Your task to perform on an android device: Search for vegetarian restaurants on Maps Image 0: 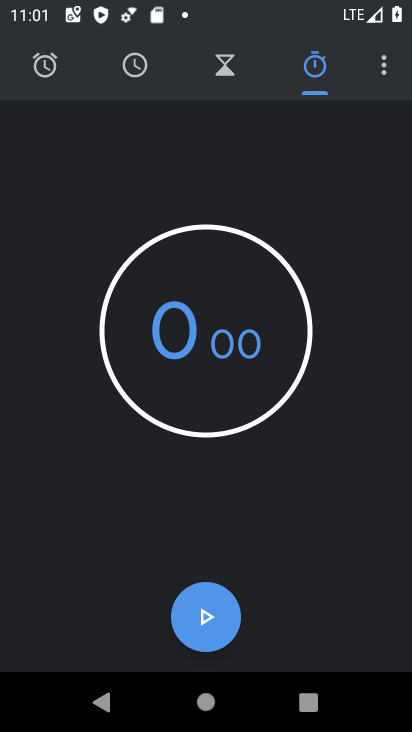
Step 0: press home button
Your task to perform on an android device: Search for vegetarian restaurants on Maps Image 1: 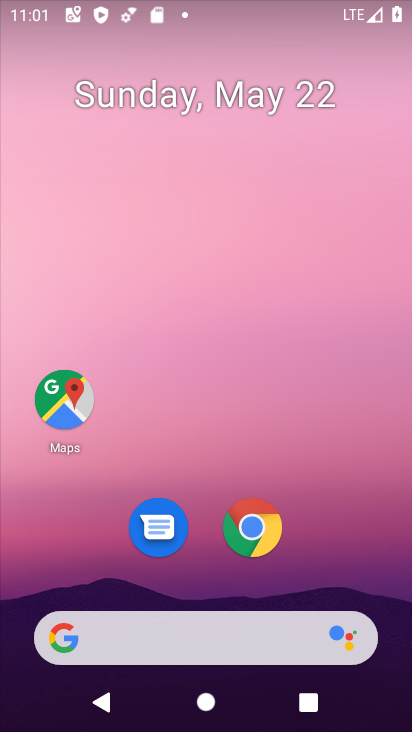
Step 1: click (64, 420)
Your task to perform on an android device: Search for vegetarian restaurants on Maps Image 2: 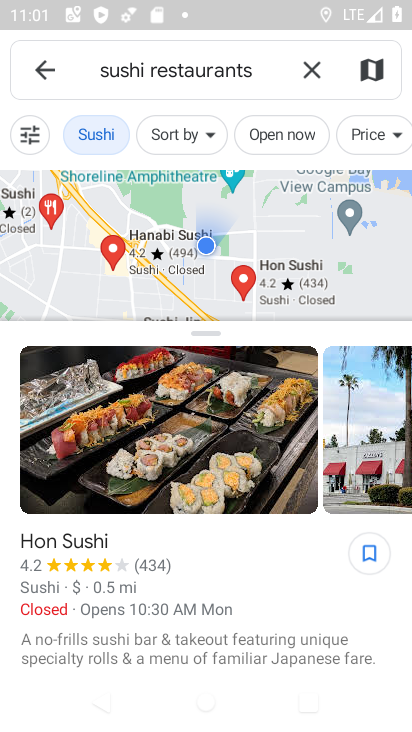
Step 2: click (299, 69)
Your task to perform on an android device: Search for vegetarian restaurants on Maps Image 3: 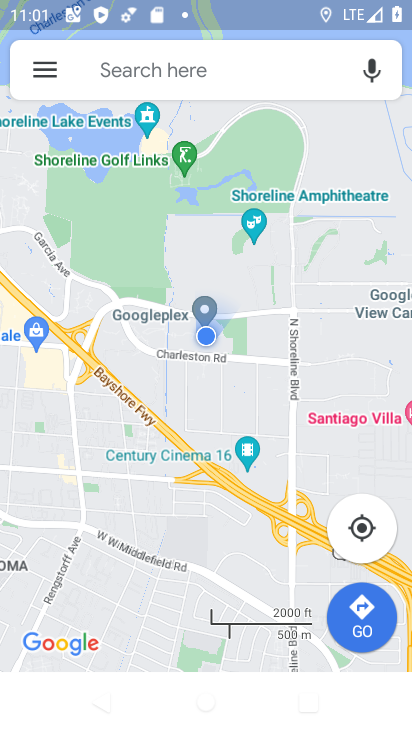
Step 3: click (216, 64)
Your task to perform on an android device: Search for vegetarian restaurants on Maps Image 4: 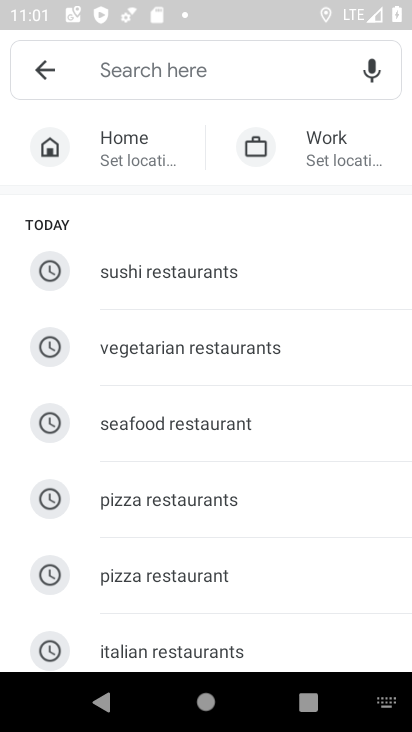
Step 4: click (204, 370)
Your task to perform on an android device: Search for vegetarian restaurants on Maps Image 5: 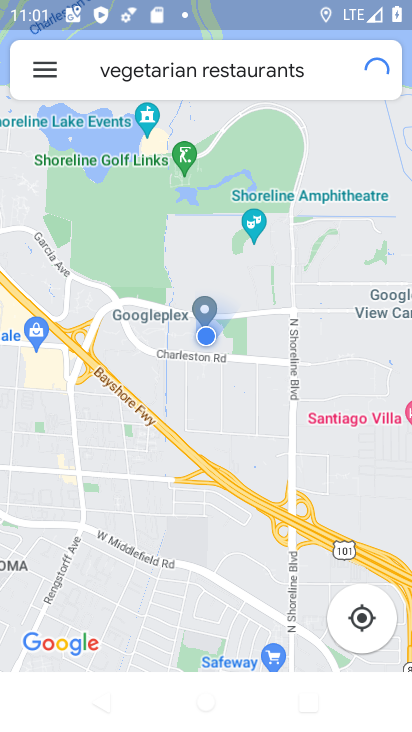
Step 5: task complete